Your task to perform on an android device: snooze an email in the gmail app Image 0: 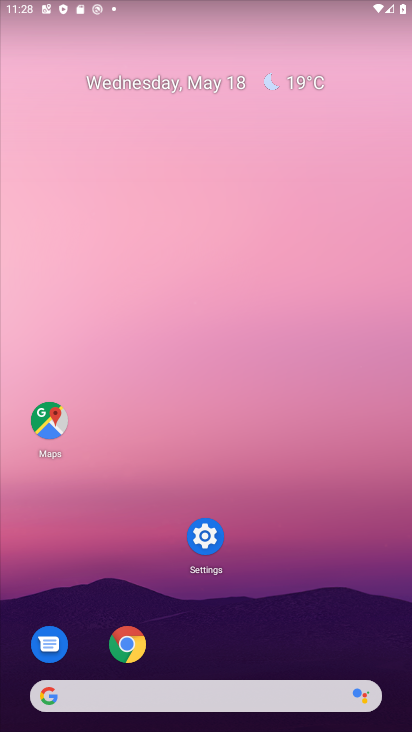
Step 0: press home button
Your task to perform on an android device: snooze an email in the gmail app Image 1: 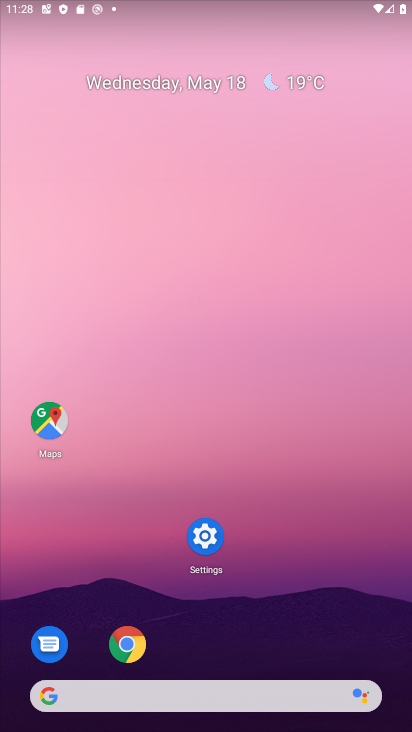
Step 1: drag from (312, 570) to (295, 215)
Your task to perform on an android device: snooze an email in the gmail app Image 2: 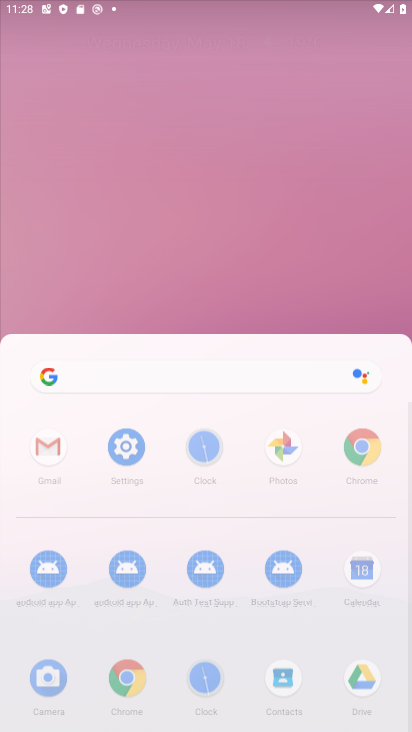
Step 2: click (298, 120)
Your task to perform on an android device: snooze an email in the gmail app Image 3: 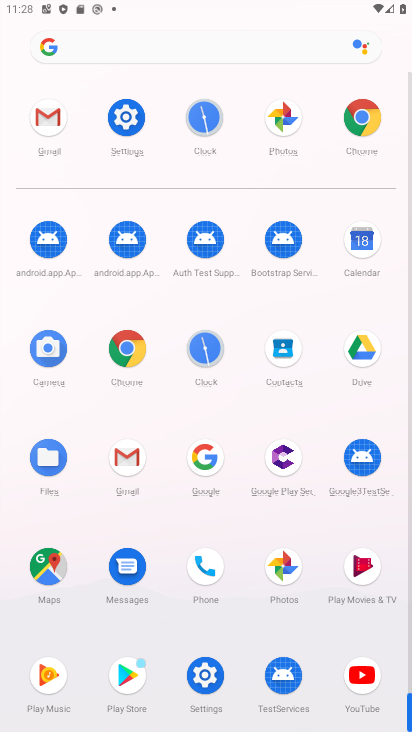
Step 3: click (58, 116)
Your task to perform on an android device: snooze an email in the gmail app Image 4: 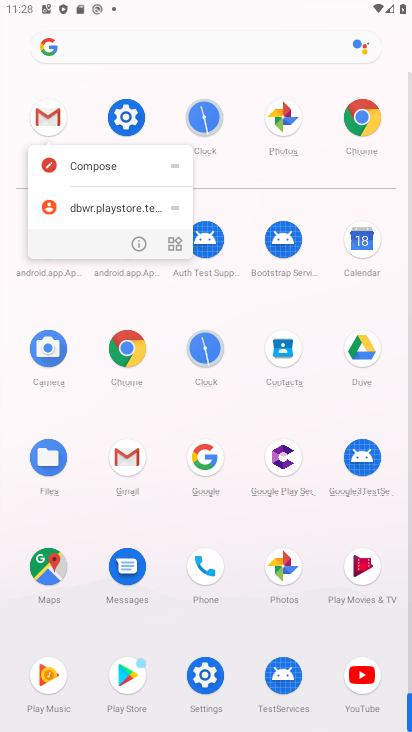
Step 4: click (43, 121)
Your task to perform on an android device: snooze an email in the gmail app Image 5: 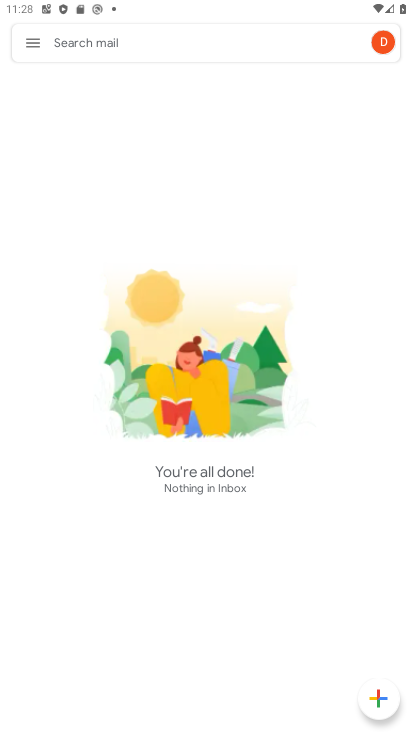
Step 5: click (36, 40)
Your task to perform on an android device: snooze an email in the gmail app Image 6: 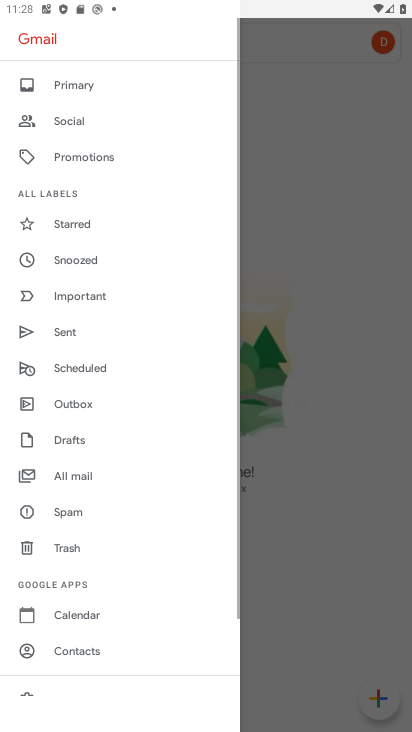
Step 6: drag from (100, 565) to (166, 205)
Your task to perform on an android device: snooze an email in the gmail app Image 7: 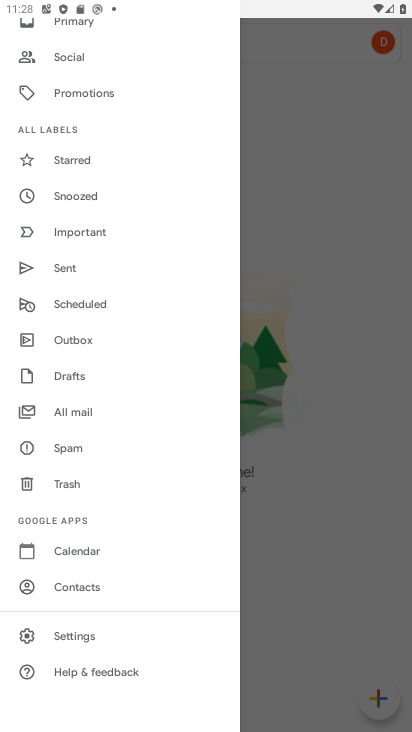
Step 7: click (66, 413)
Your task to perform on an android device: snooze an email in the gmail app Image 8: 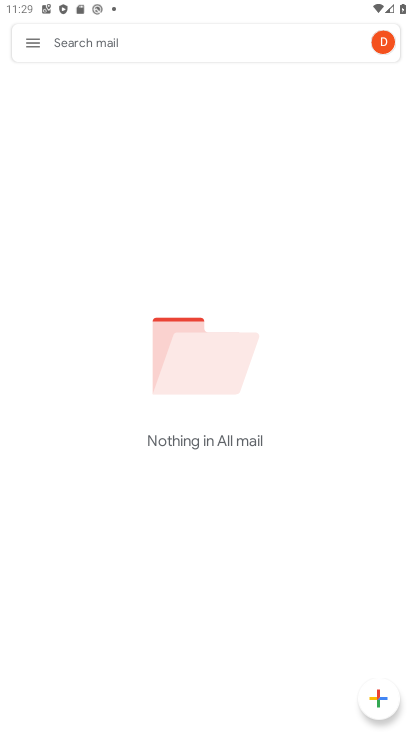
Step 8: task complete